Your task to perform on an android device: check storage Image 0: 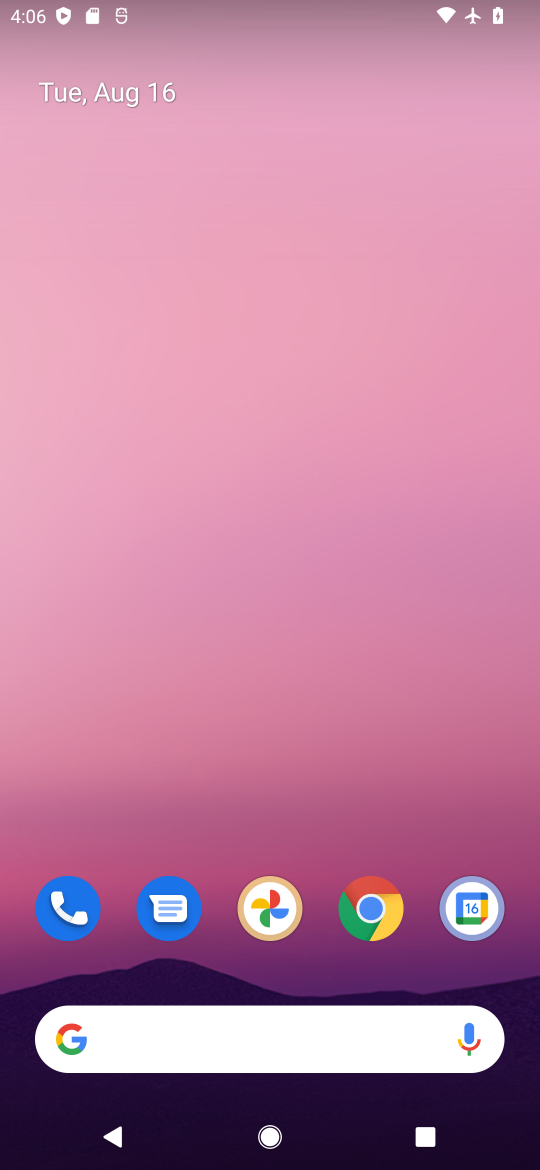
Step 0: drag from (319, 873) to (220, 0)
Your task to perform on an android device: check storage Image 1: 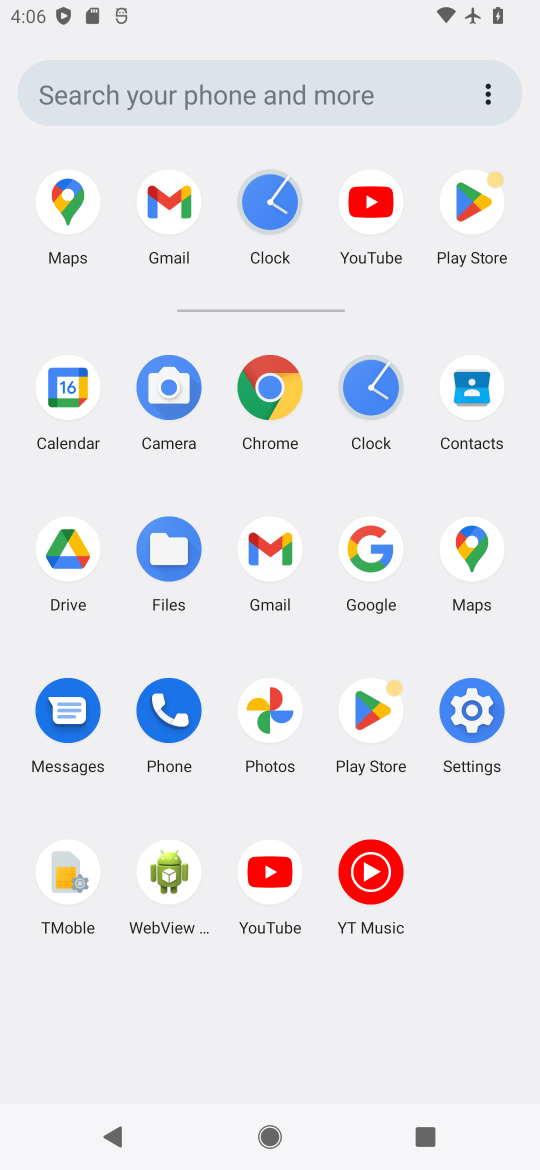
Step 1: click (469, 708)
Your task to perform on an android device: check storage Image 2: 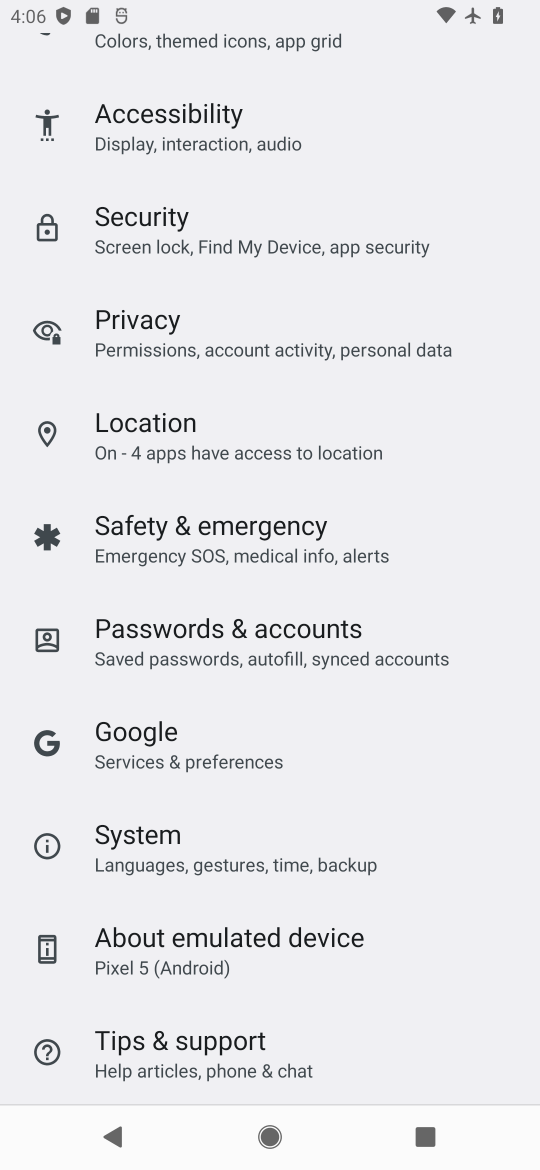
Step 2: drag from (52, 163) to (56, 1163)
Your task to perform on an android device: check storage Image 3: 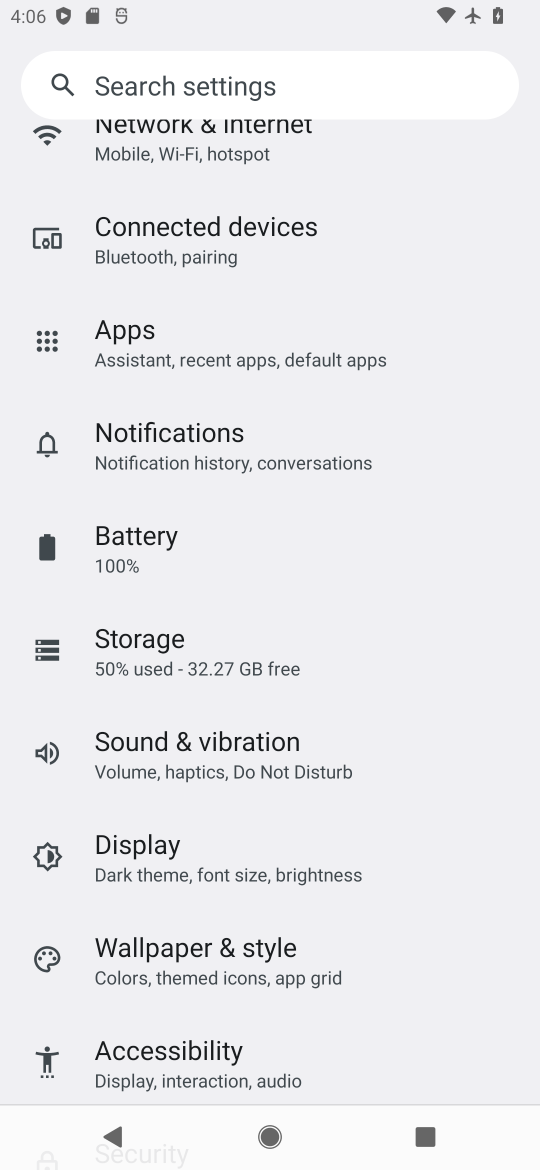
Step 3: click (203, 640)
Your task to perform on an android device: check storage Image 4: 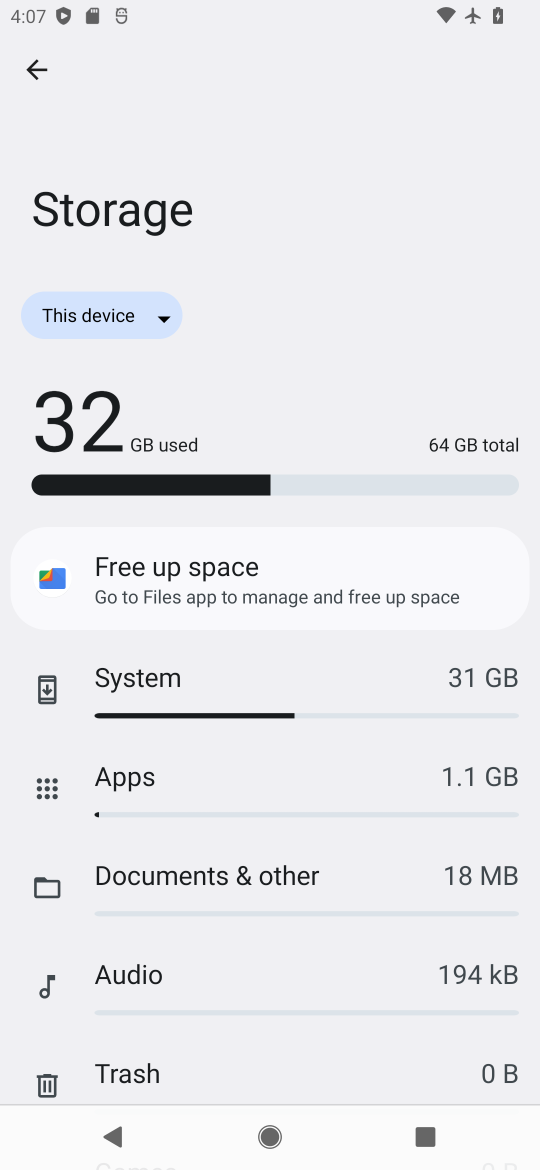
Step 4: task complete